Your task to perform on an android device: turn off airplane mode Image 0: 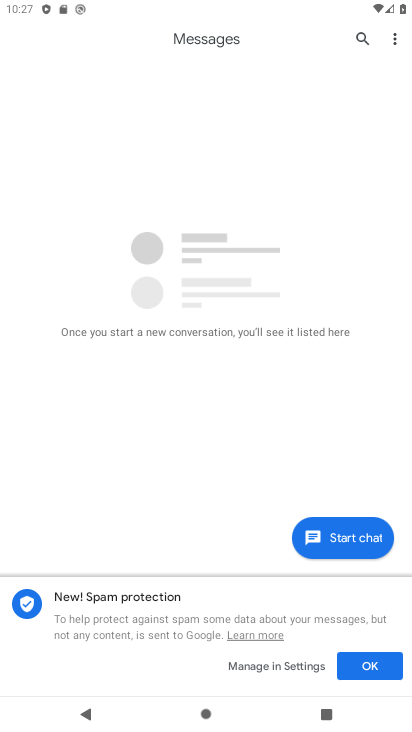
Step 0: press home button
Your task to perform on an android device: turn off airplane mode Image 1: 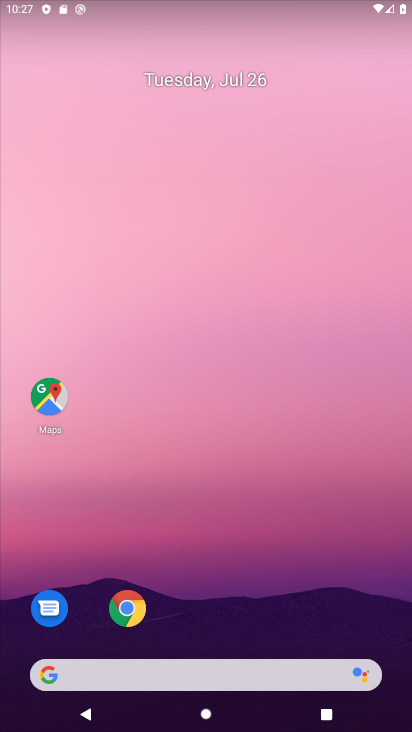
Step 1: drag from (332, 617) to (265, 1)
Your task to perform on an android device: turn off airplane mode Image 2: 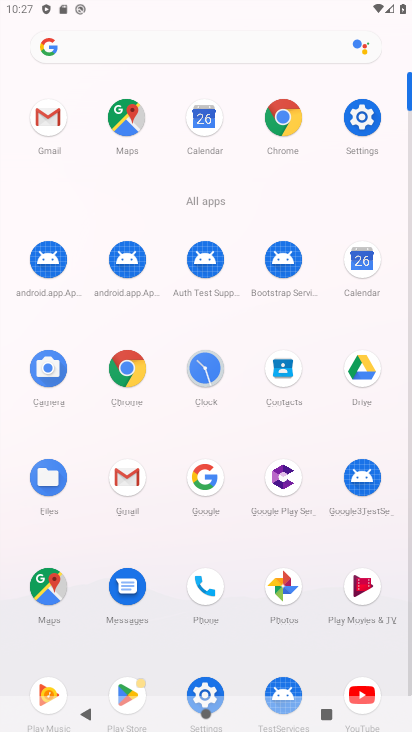
Step 2: click (364, 110)
Your task to perform on an android device: turn off airplane mode Image 3: 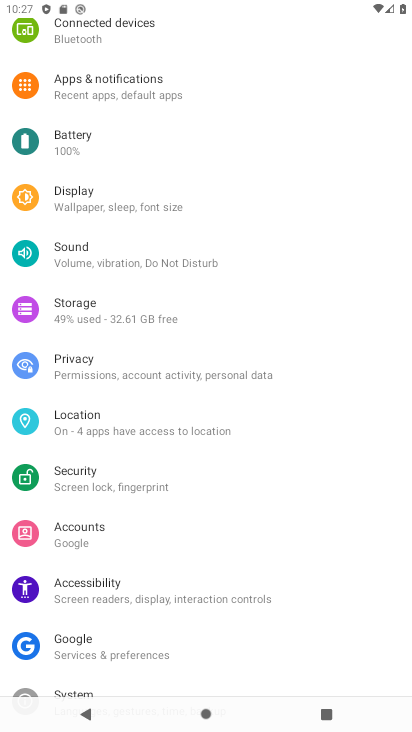
Step 3: drag from (161, 94) to (189, 451)
Your task to perform on an android device: turn off airplane mode Image 4: 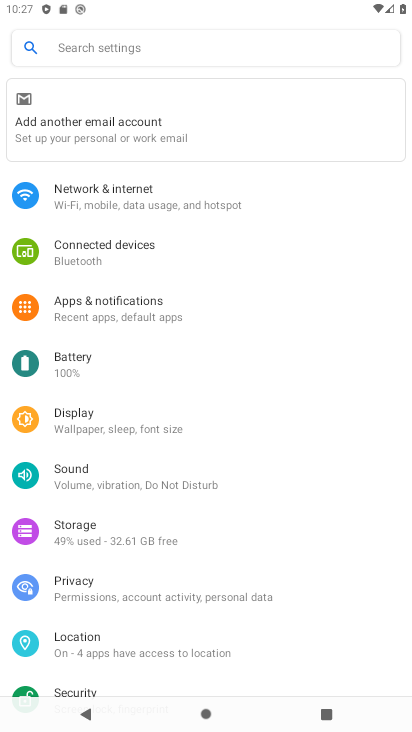
Step 4: click (148, 206)
Your task to perform on an android device: turn off airplane mode Image 5: 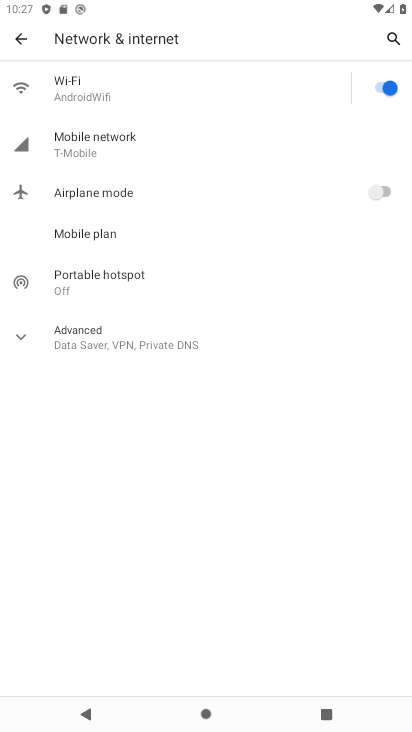
Step 5: task complete